Your task to perform on an android device: Open network settings Image 0: 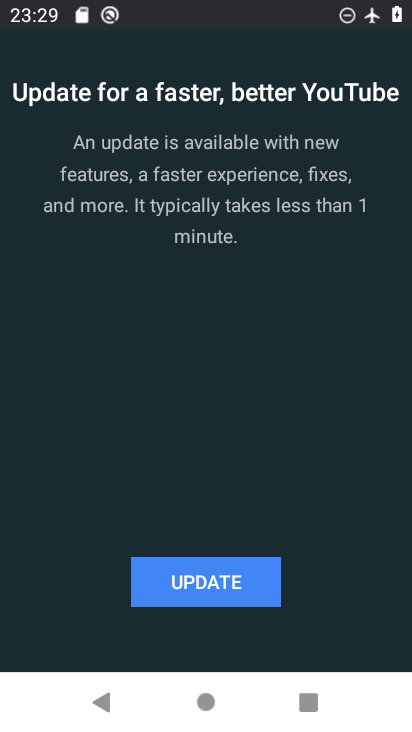
Step 0: press home button
Your task to perform on an android device: Open network settings Image 1: 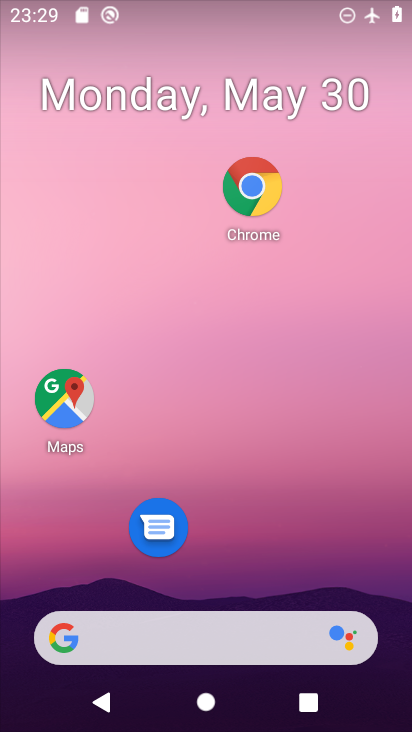
Step 1: drag from (279, 584) to (305, 258)
Your task to perform on an android device: Open network settings Image 2: 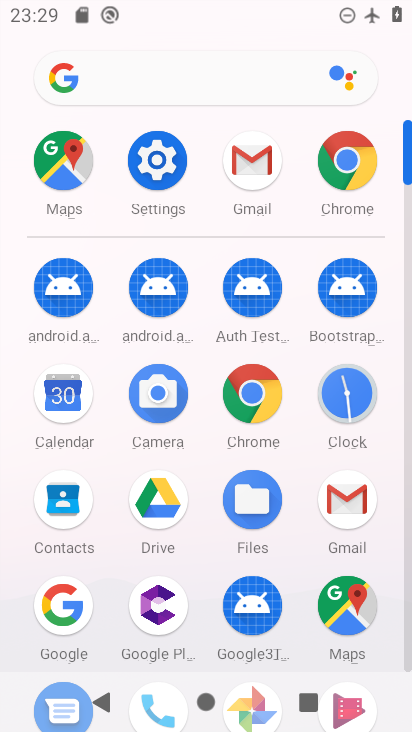
Step 2: click (153, 150)
Your task to perform on an android device: Open network settings Image 3: 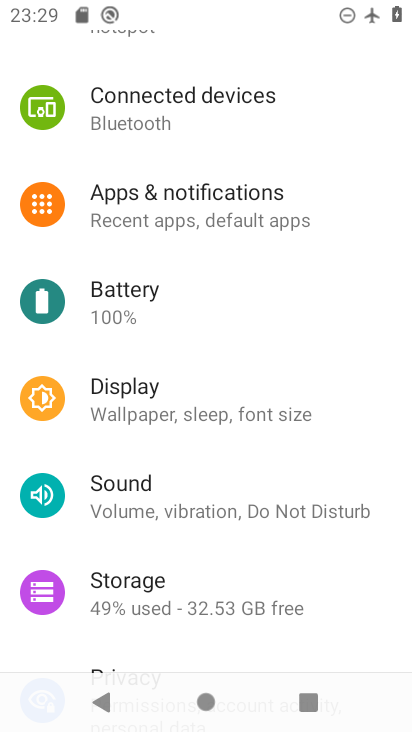
Step 3: drag from (187, 165) to (183, 618)
Your task to perform on an android device: Open network settings Image 4: 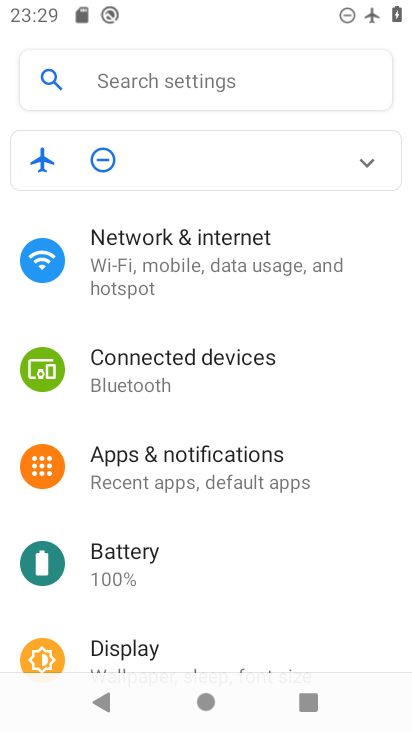
Step 4: click (209, 264)
Your task to perform on an android device: Open network settings Image 5: 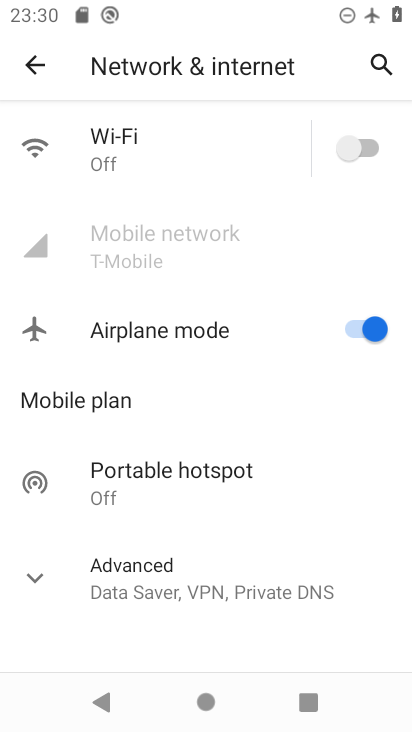
Step 5: task complete